Your task to perform on an android device: Look up the best rated Nike shoes on Nike.com Image 0: 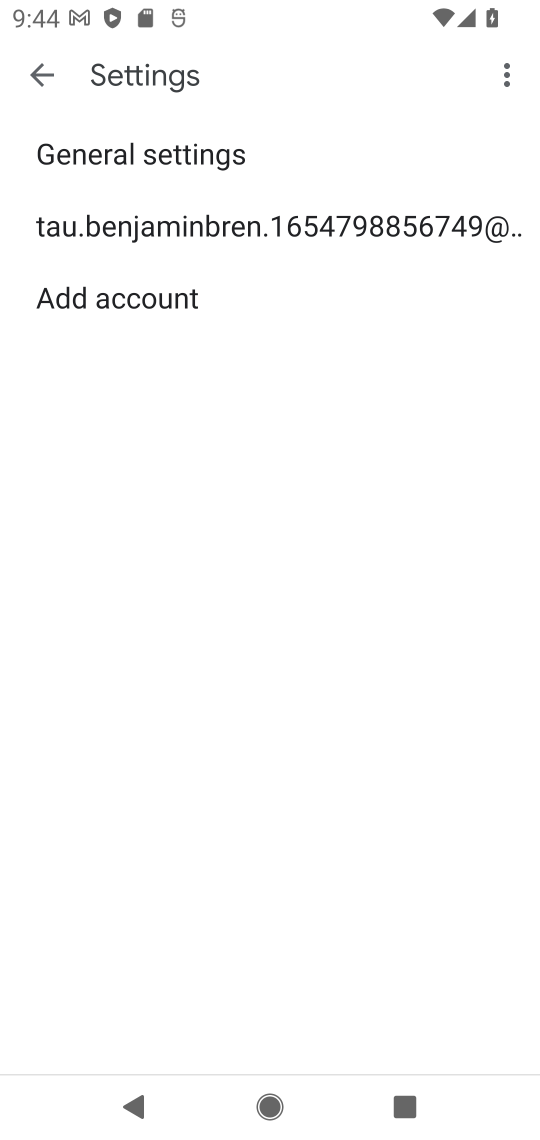
Step 0: press home button
Your task to perform on an android device: Look up the best rated Nike shoes on Nike.com Image 1: 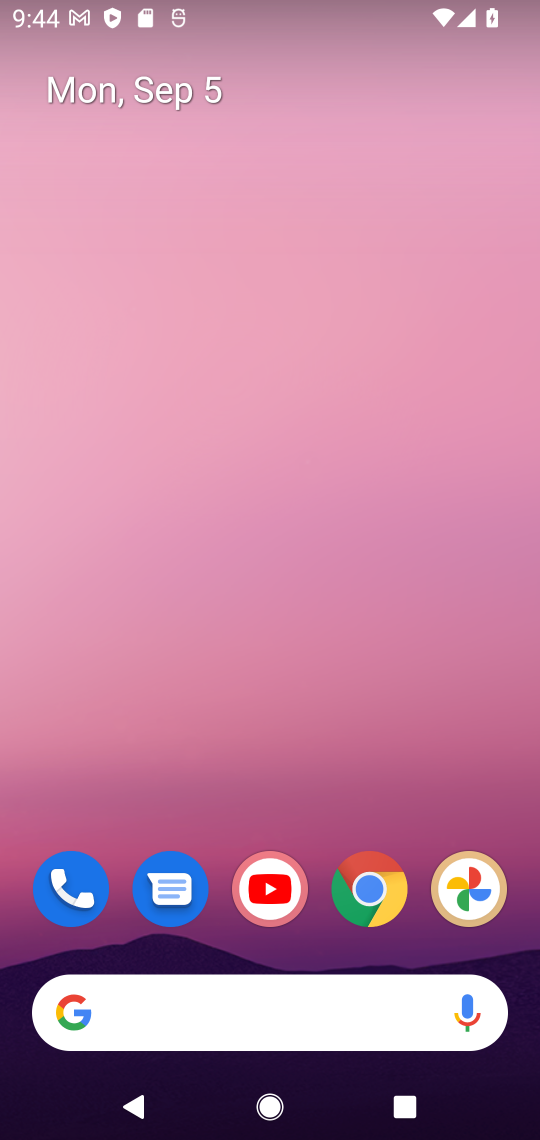
Step 1: click (248, 1015)
Your task to perform on an android device: Look up the best rated Nike shoes on Nike.com Image 2: 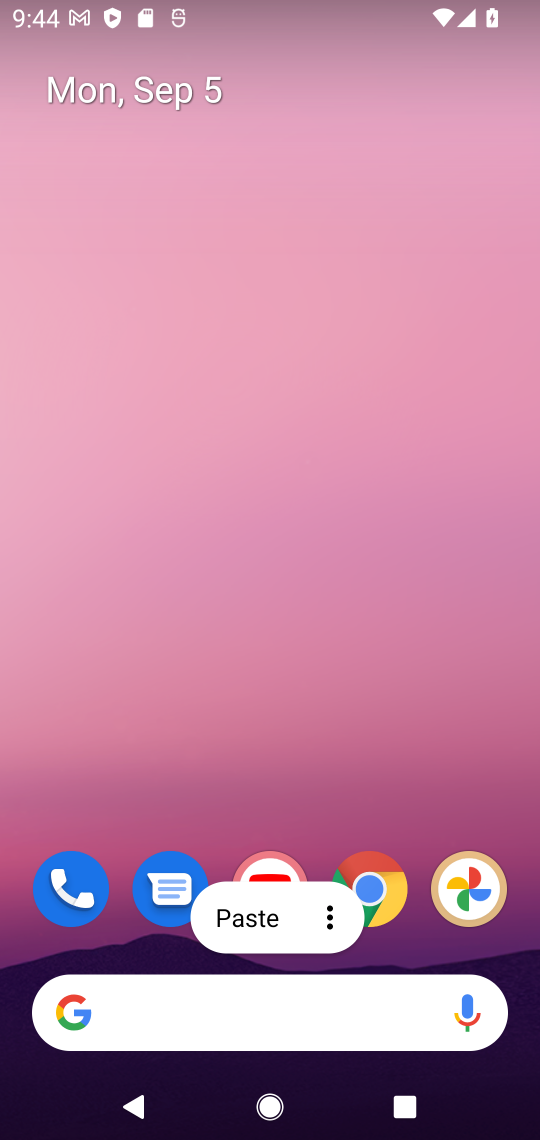
Step 2: click (248, 1015)
Your task to perform on an android device: Look up the best rated Nike shoes on Nike.com Image 3: 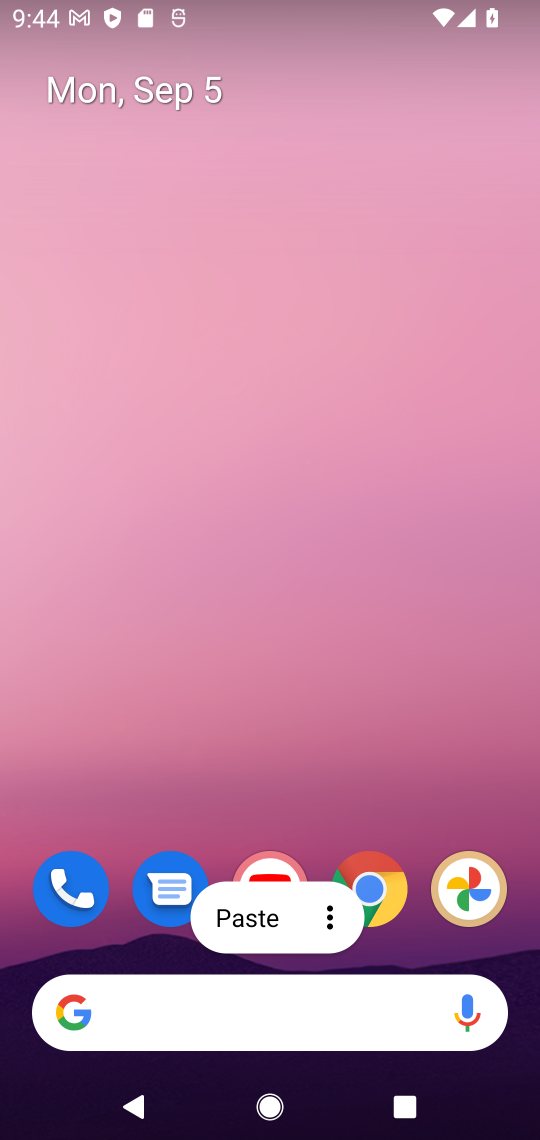
Step 3: click (248, 1015)
Your task to perform on an android device: Look up the best rated Nike shoes on Nike.com Image 4: 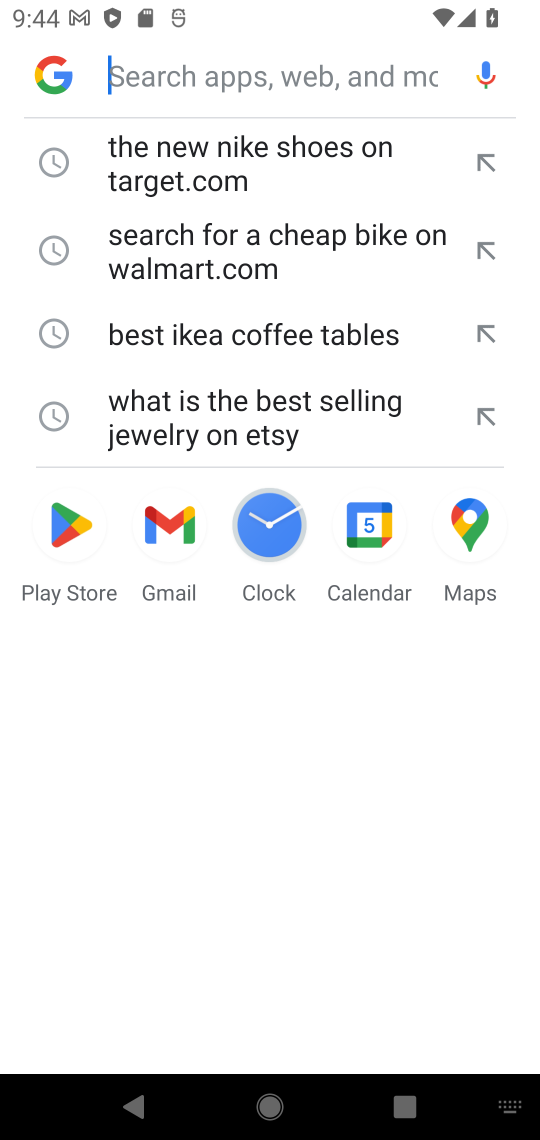
Step 4: type " the best rated Nike shoes on Nike.com"
Your task to perform on an android device: Look up the best rated Nike shoes on Nike.com Image 5: 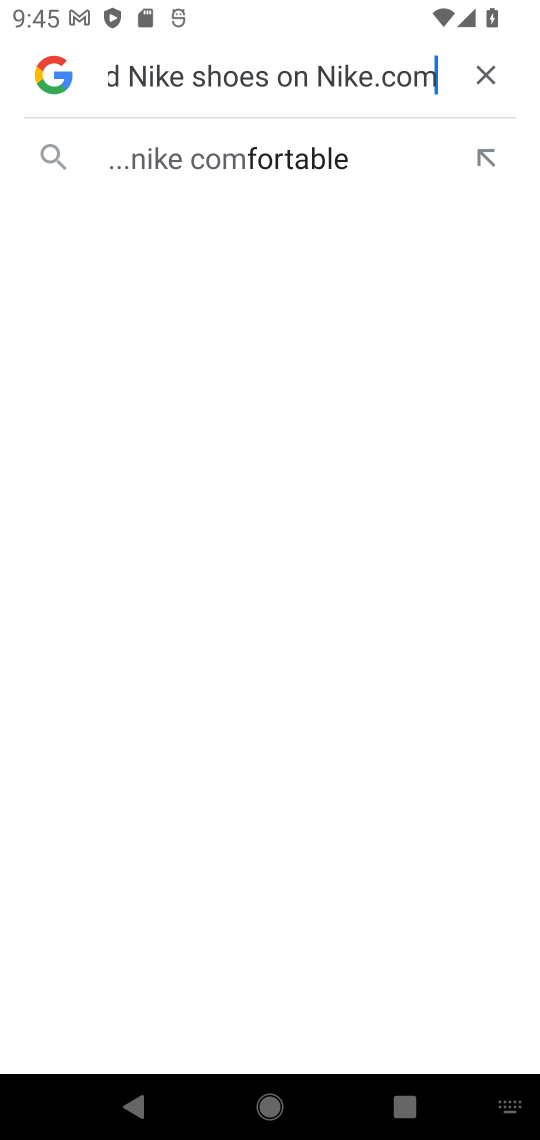
Step 5: click (230, 154)
Your task to perform on an android device: Look up the best rated Nike shoes on Nike.com Image 6: 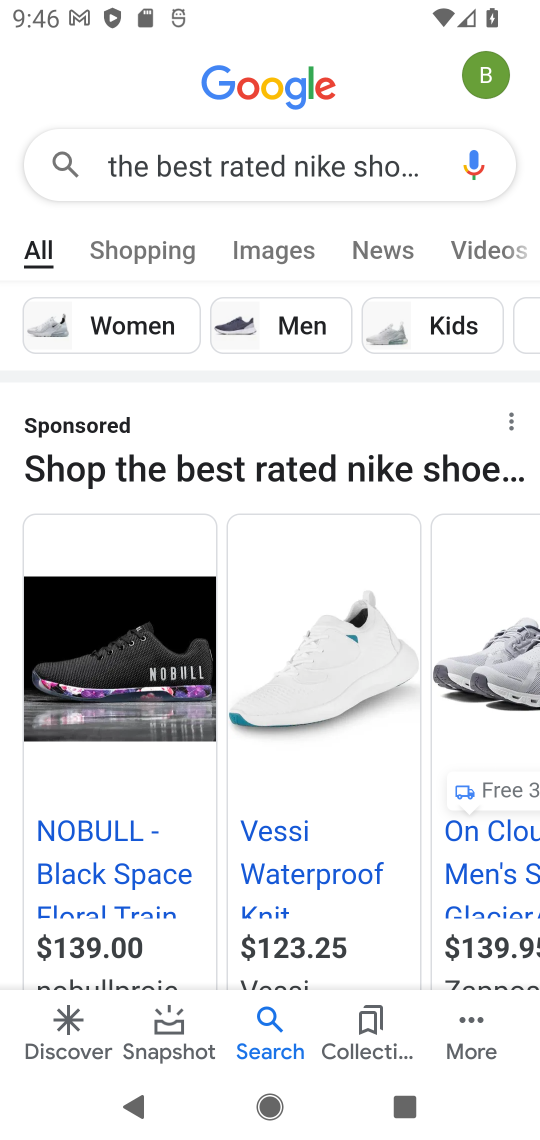
Step 6: task complete